Your task to perform on an android device: install app "Fetch Rewards" Image 0: 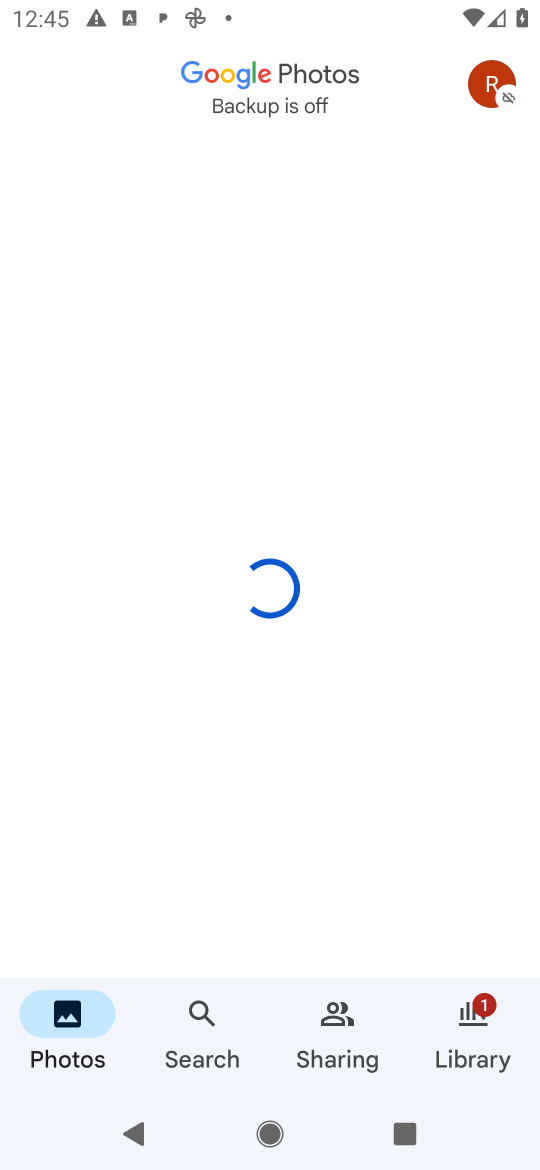
Step 0: press home button
Your task to perform on an android device: install app "Fetch Rewards" Image 1: 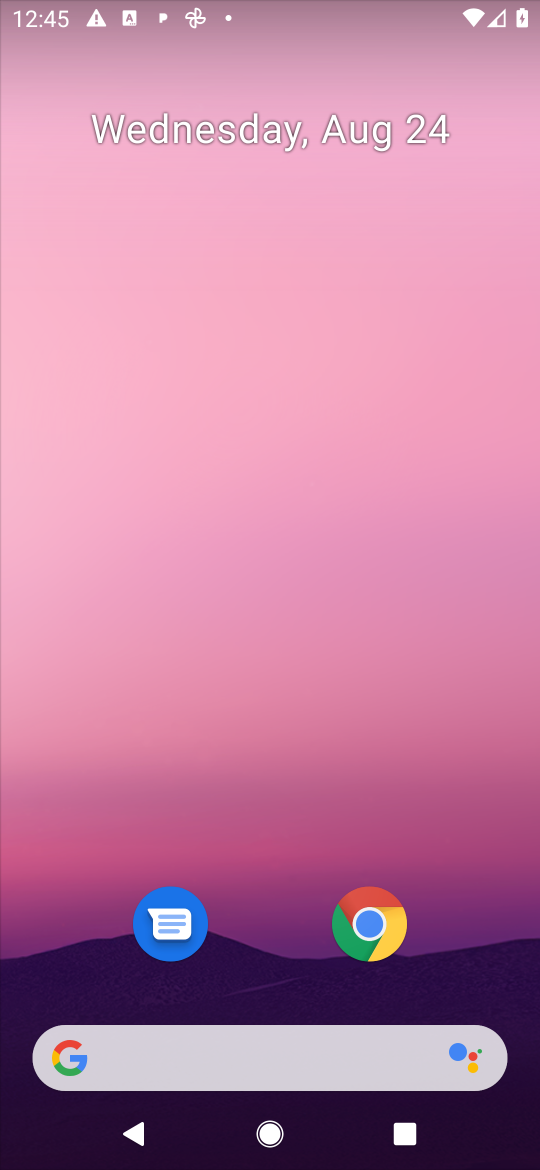
Step 1: drag from (477, 932) to (484, 123)
Your task to perform on an android device: install app "Fetch Rewards" Image 2: 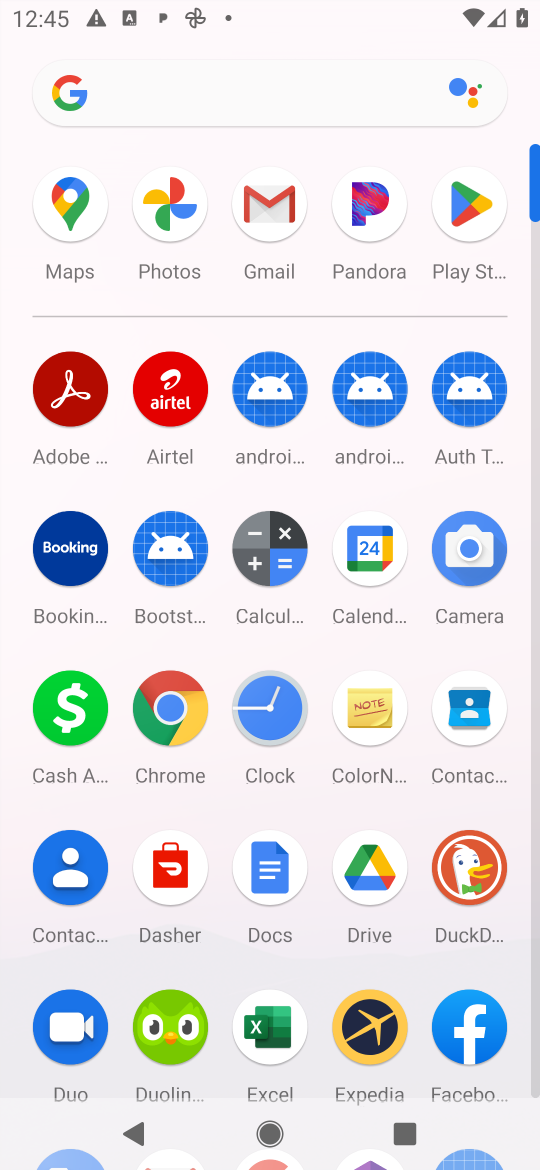
Step 2: click (459, 194)
Your task to perform on an android device: install app "Fetch Rewards" Image 3: 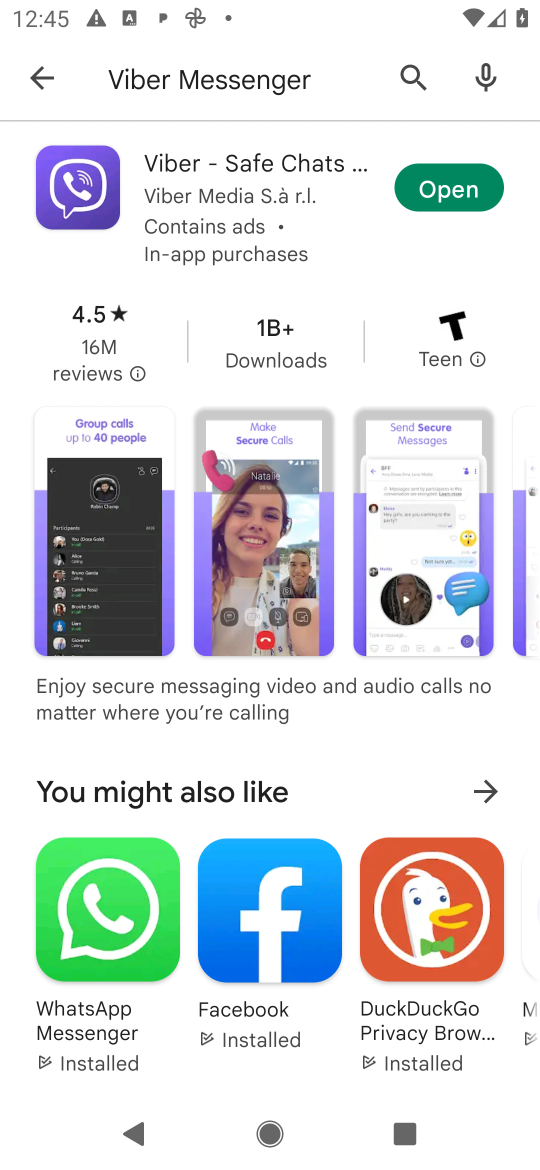
Step 3: press back button
Your task to perform on an android device: install app "Fetch Rewards" Image 4: 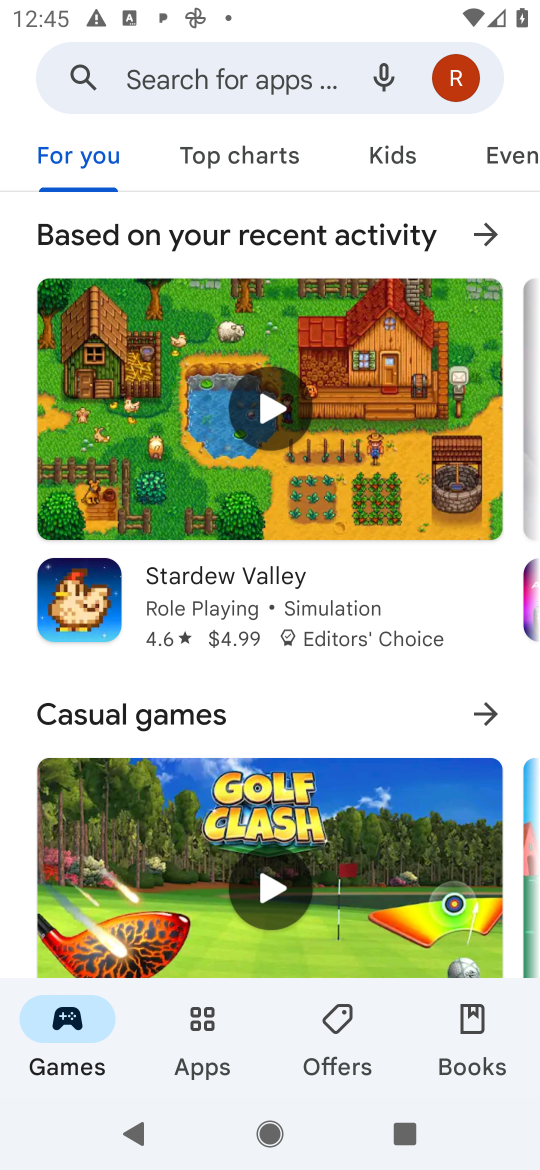
Step 4: click (275, 83)
Your task to perform on an android device: install app "Fetch Rewards" Image 5: 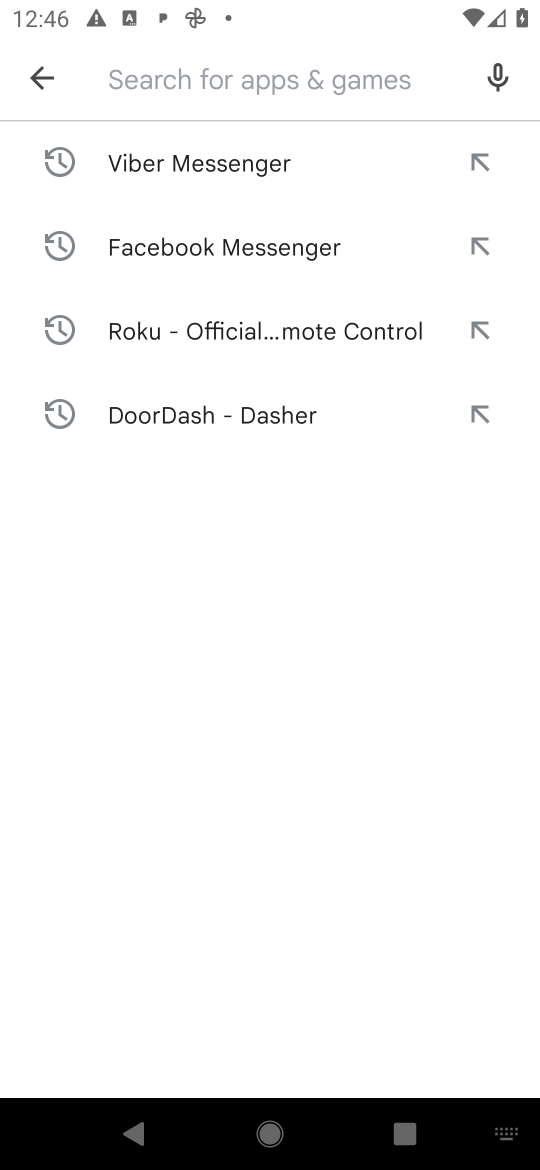
Step 5: type "Fetch Rewards"
Your task to perform on an android device: install app "Fetch Rewards" Image 6: 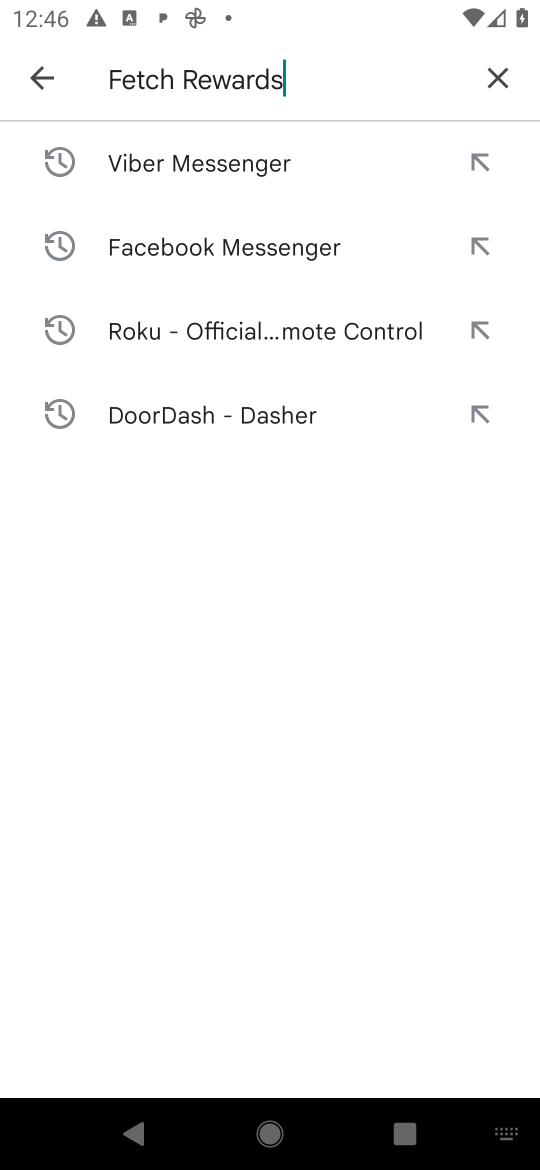
Step 6: press enter
Your task to perform on an android device: install app "Fetch Rewards" Image 7: 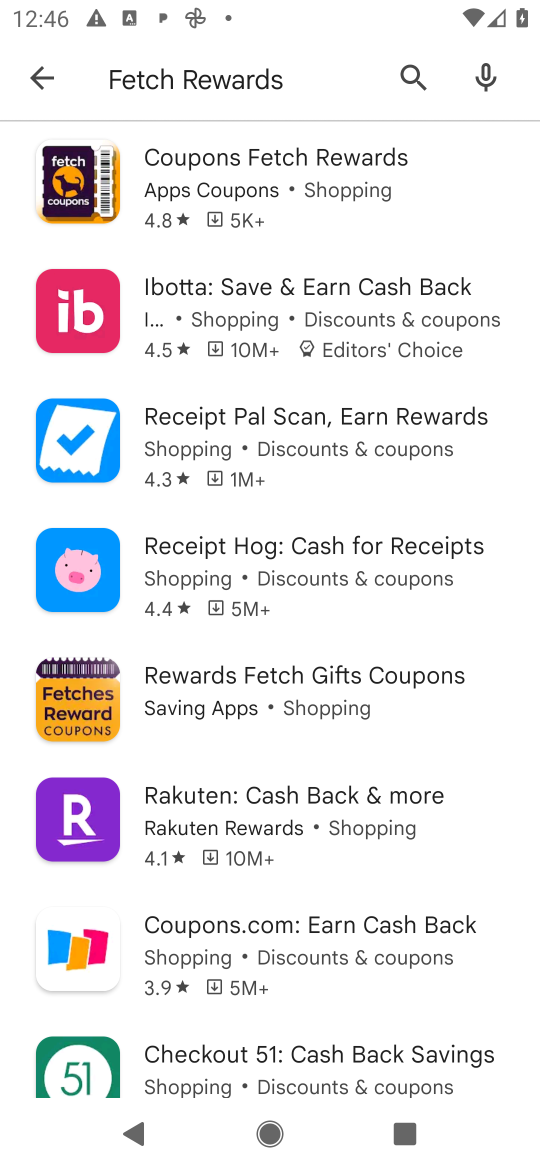
Step 7: task complete